Your task to perform on an android device: Find coffee shops on Maps Image 0: 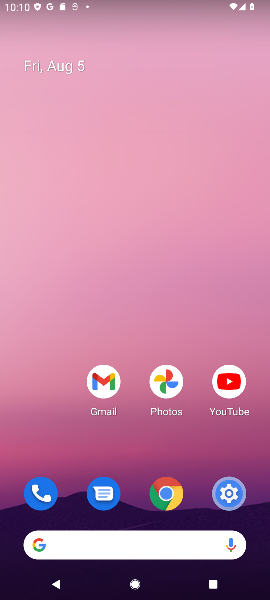
Step 0: press home button
Your task to perform on an android device: Find coffee shops on Maps Image 1: 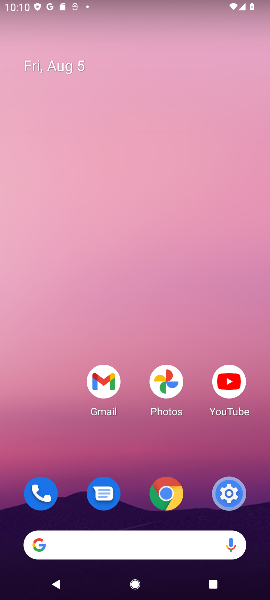
Step 1: press home button
Your task to perform on an android device: Find coffee shops on Maps Image 2: 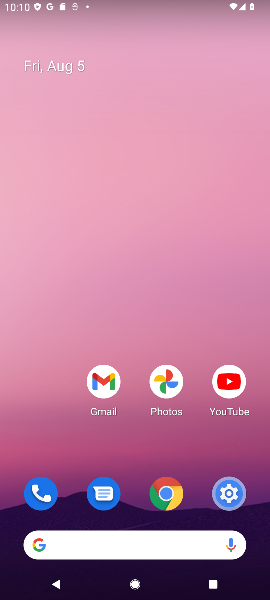
Step 2: drag from (133, 456) to (155, 66)
Your task to perform on an android device: Find coffee shops on Maps Image 3: 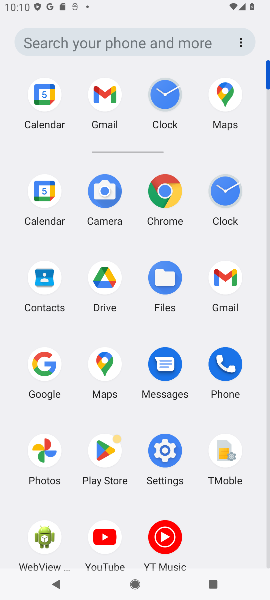
Step 3: click (102, 362)
Your task to perform on an android device: Find coffee shops on Maps Image 4: 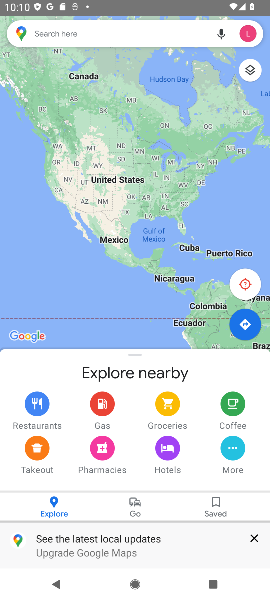
Step 4: click (70, 31)
Your task to perform on an android device: Find coffee shops on Maps Image 5: 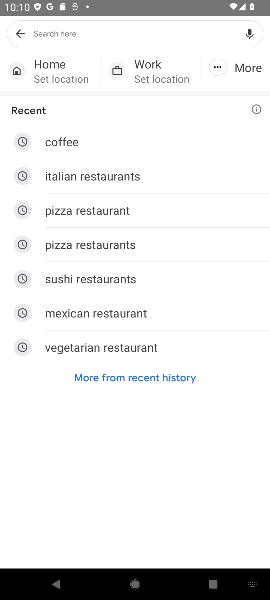
Step 5: click (72, 142)
Your task to perform on an android device: Find coffee shops on Maps Image 6: 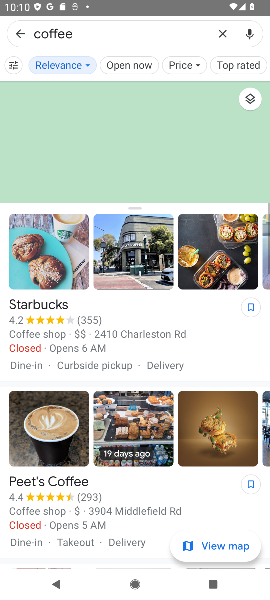
Step 6: task complete